Your task to perform on an android device: set an alarm Image 0: 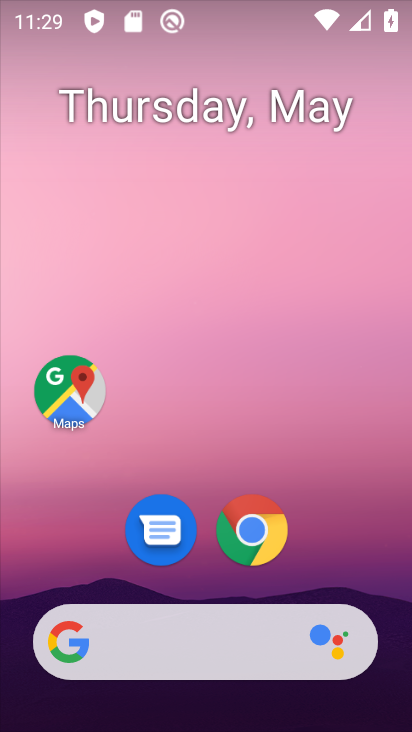
Step 0: drag from (334, 560) to (299, 65)
Your task to perform on an android device: set an alarm Image 1: 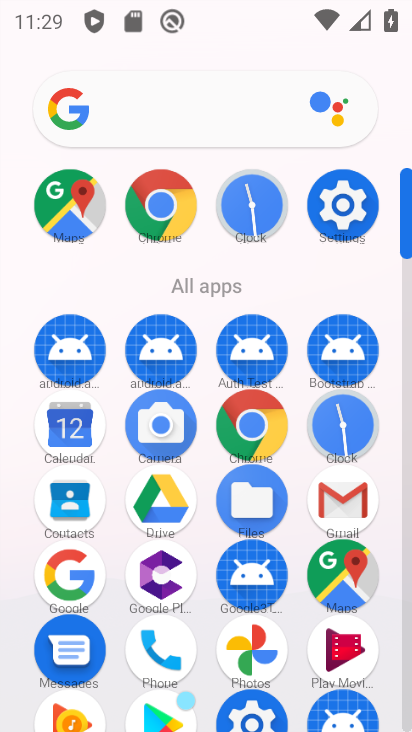
Step 1: click (346, 416)
Your task to perform on an android device: set an alarm Image 2: 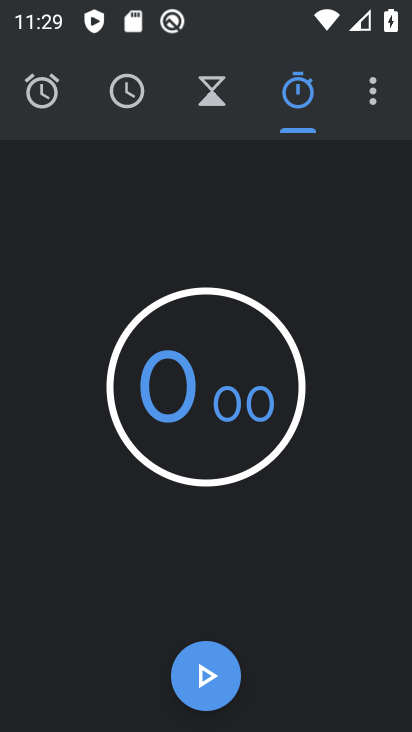
Step 2: click (26, 90)
Your task to perform on an android device: set an alarm Image 3: 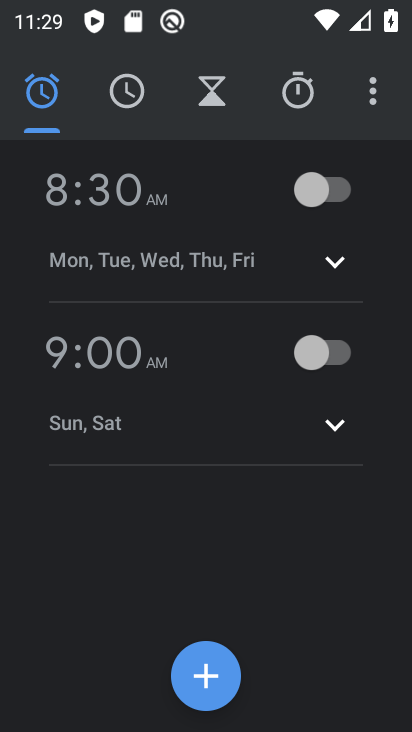
Step 3: click (174, 652)
Your task to perform on an android device: set an alarm Image 4: 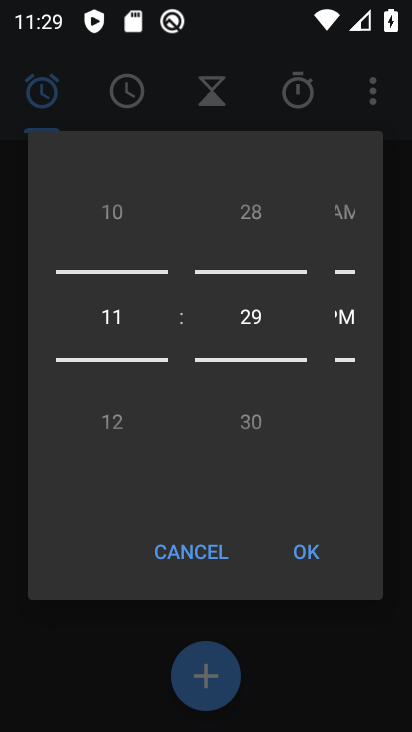
Step 4: click (295, 560)
Your task to perform on an android device: set an alarm Image 5: 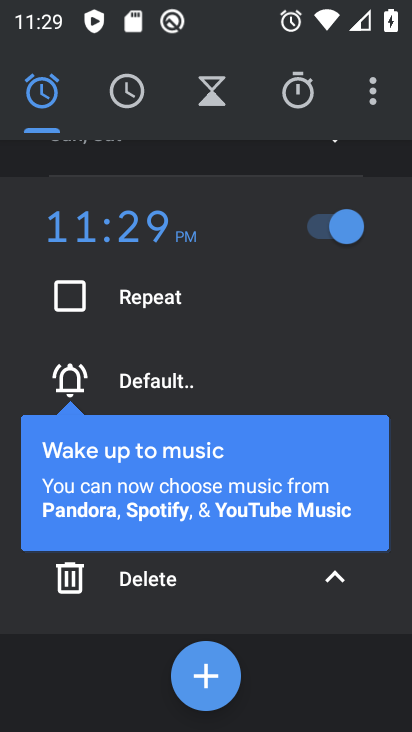
Step 5: click (330, 564)
Your task to perform on an android device: set an alarm Image 6: 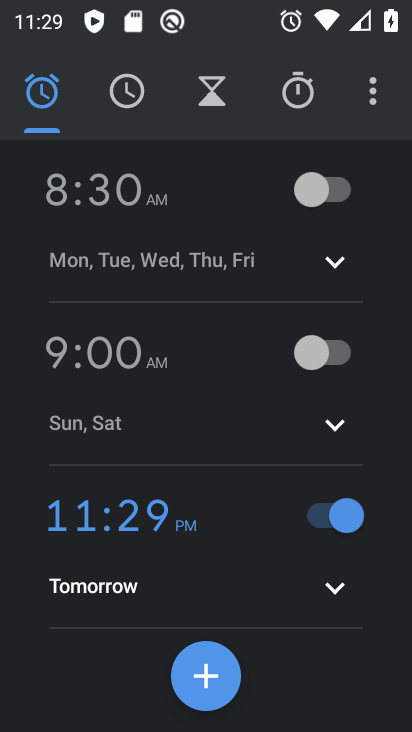
Step 6: task complete